Your task to perform on an android device: Open sound settings Image 0: 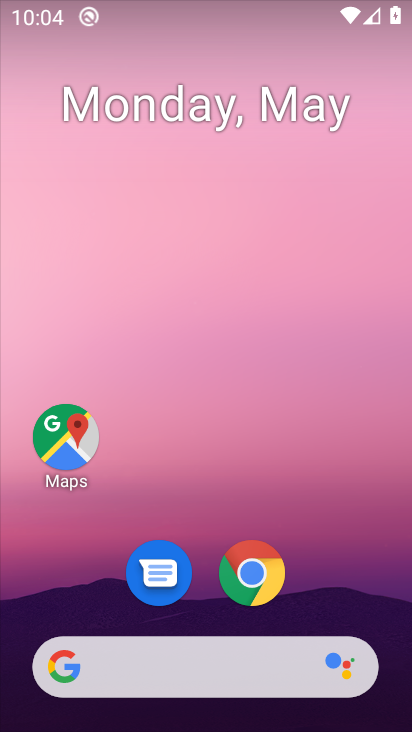
Step 0: drag from (195, 598) to (257, 90)
Your task to perform on an android device: Open sound settings Image 1: 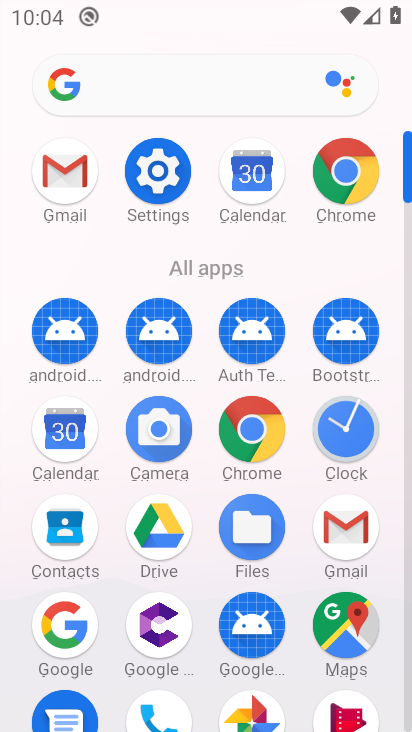
Step 1: click (165, 158)
Your task to perform on an android device: Open sound settings Image 2: 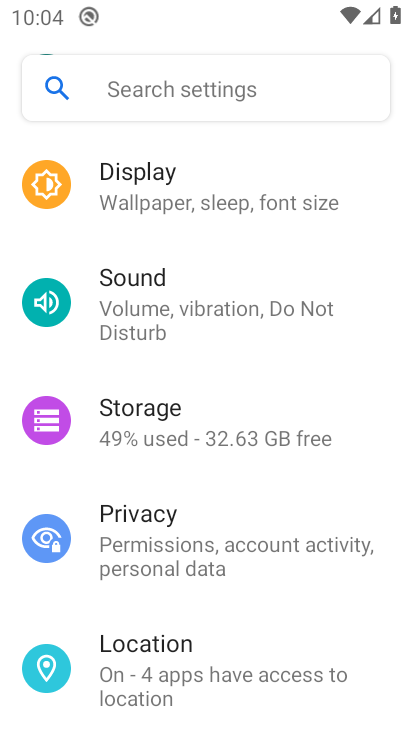
Step 2: drag from (219, 242) to (187, 501)
Your task to perform on an android device: Open sound settings Image 3: 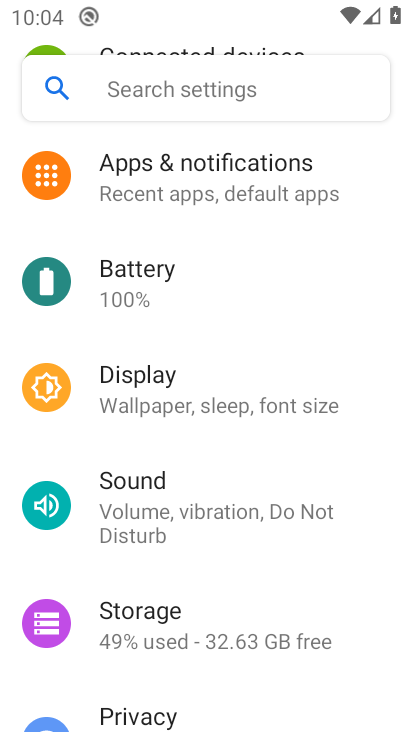
Step 3: click (155, 500)
Your task to perform on an android device: Open sound settings Image 4: 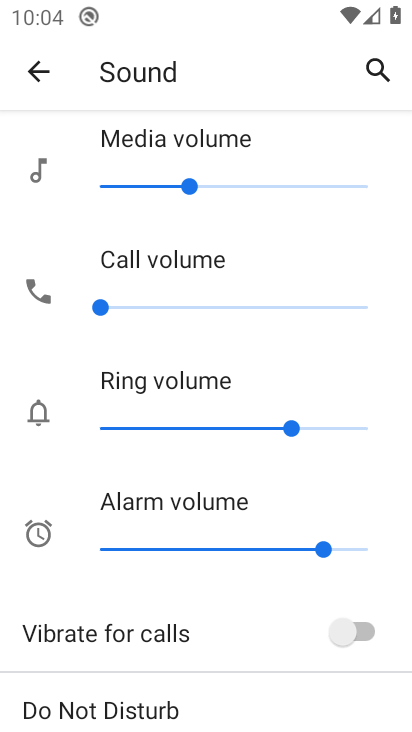
Step 4: task complete